Your task to perform on an android device: Search for seafood restaurants on Google Maps Image 0: 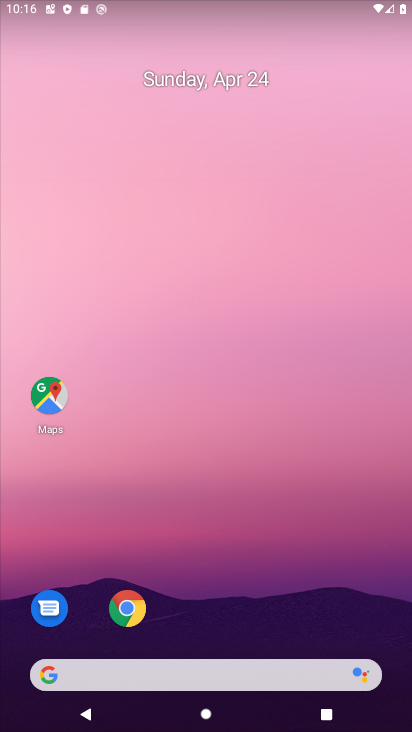
Step 0: drag from (231, 625) to (276, 156)
Your task to perform on an android device: Search for seafood restaurants on Google Maps Image 1: 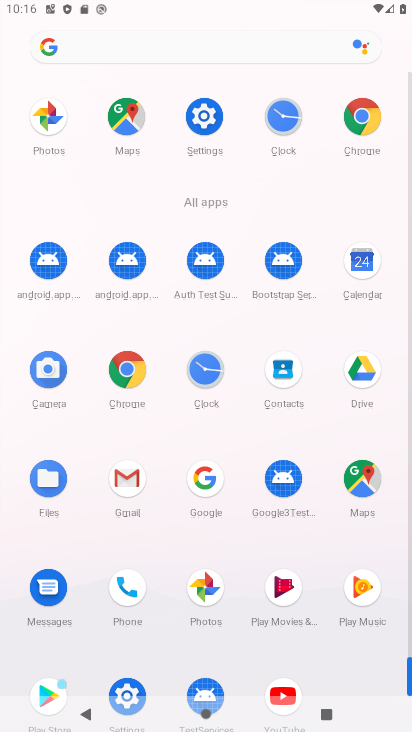
Step 1: click (368, 473)
Your task to perform on an android device: Search for seafood restaurants on Google Maps Image 2: 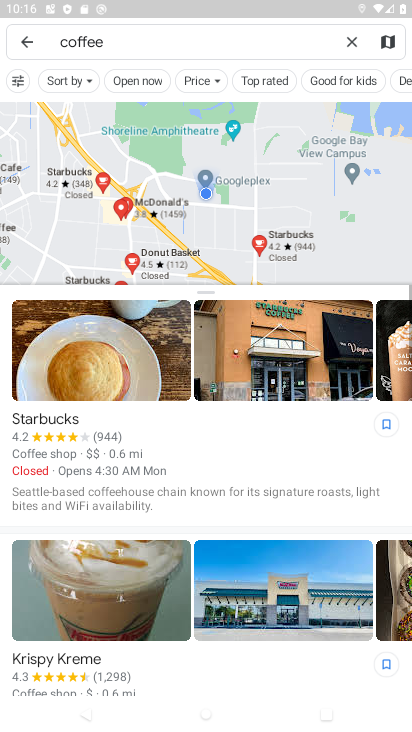
Step 2: click (169, 45)
Your task to perform on an android device: Search for seafood restaurants on Google Maps Image 3: 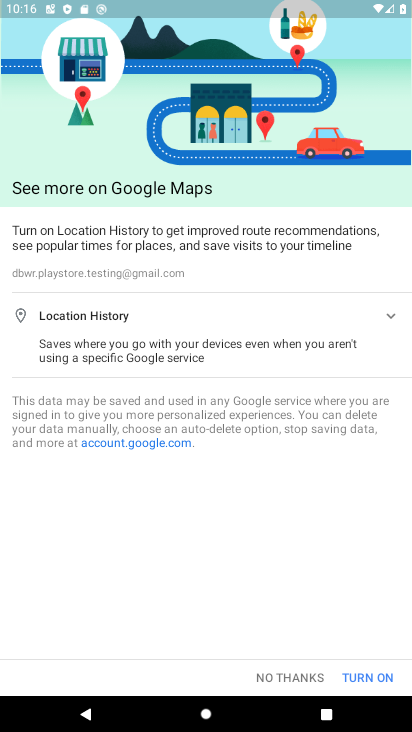
Step 3: click (285, 678)
Your task to perform on an android device: Search for seafood restaurants on Google Maps Image 4: 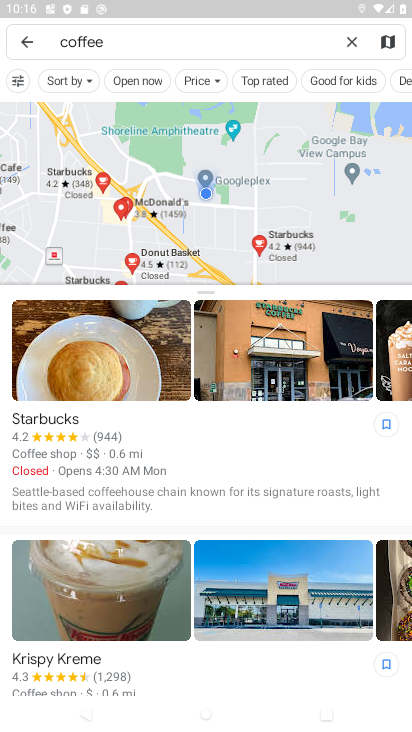
Step 4: click (214, 42)
Your task to perform on an android device: Search for seafood restaurants on Google Maps Image 5: 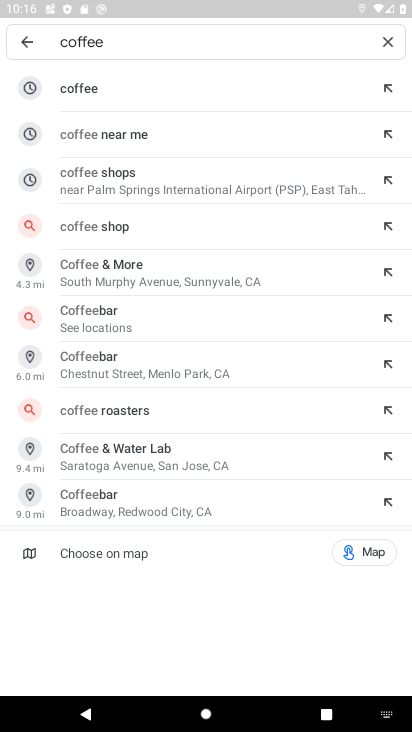
Step 5: click (392, 35)
Your task to perform on an android device: Search for seafood restaurants on Google Maps Image 6: 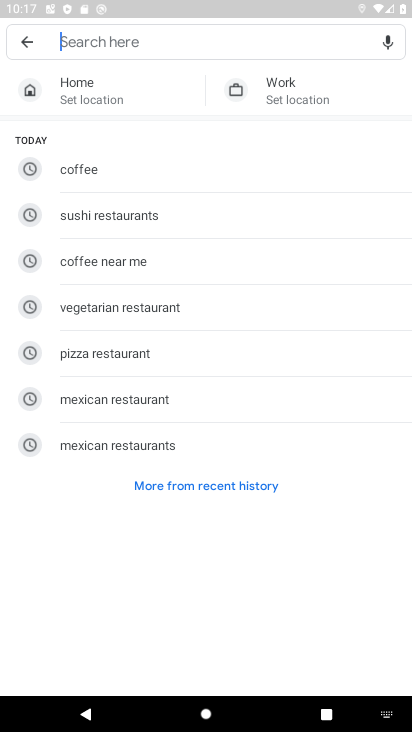
Step 6: type "seafood restaurants"
Your task to perform on an android device: Search for seafood restaurants on Google Maps Image 7: 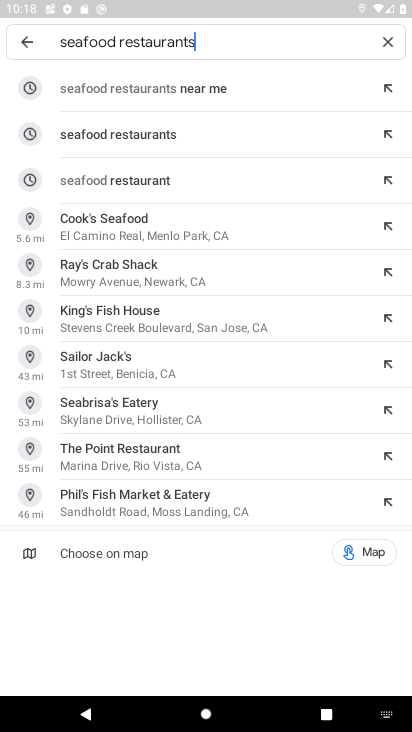
Step 7: press enter
Your task to perform on an android device: Search for seafood restaurants on Google Maps Image 8: 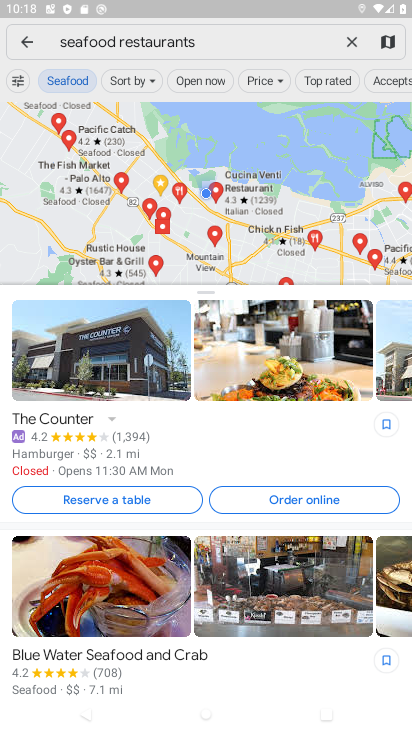
Step 8: task complete